Your task to perform on an android device: Open Amazon Image 0: 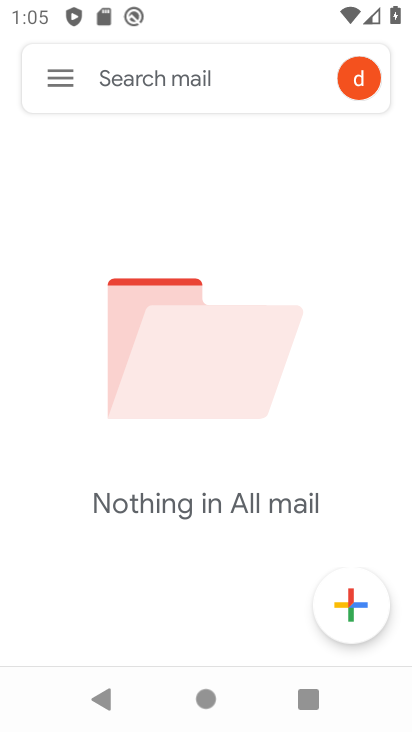
Step 0: press home button
Your task to perform on an android device: Open Amazon Image 1: 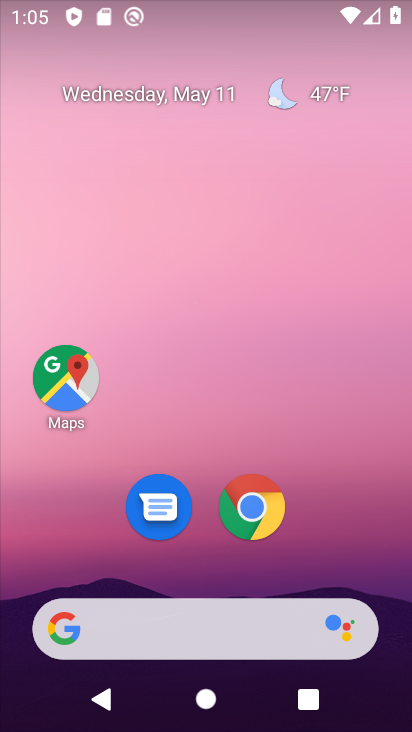
Step 1: drag from (242, 300) to (357, 245)
Your task to perform on an android device: Open Amazon Image 2: 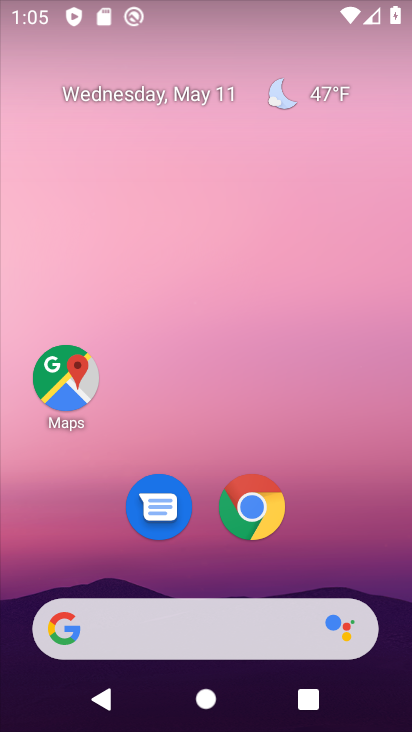
Step 2: click (358, 474)
Your task to perform on an android device: Open Amazon Image 3: 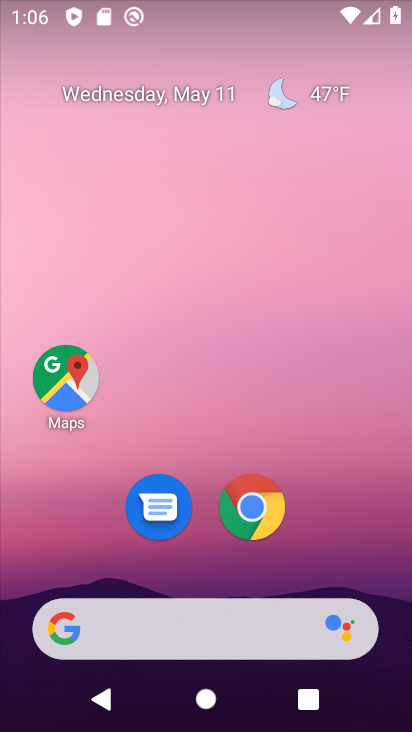
Step 3: click (262, 510)
Your task to perform on an android device: Open Amazon Image 4: 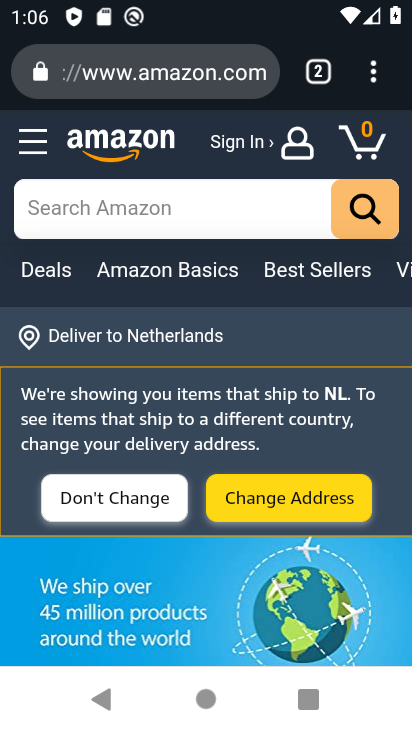
Step 4: task complete